Your task to perform on an android device: Open wifi settings Image 0: 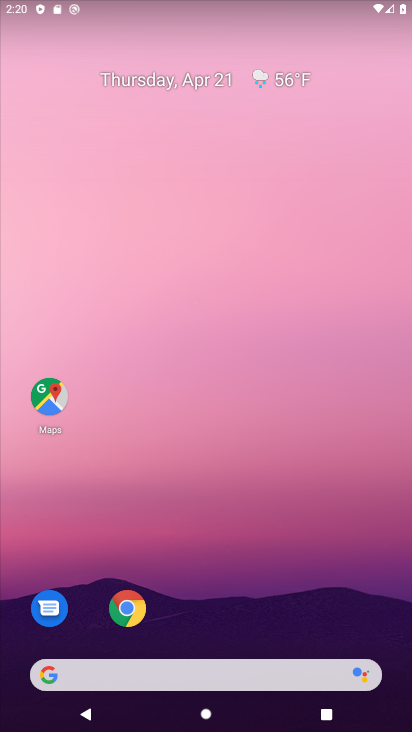
Step 0: drag from (247, 505) to (265, 73)
Your task to perform on an android device: Open wifi settings Image 1: 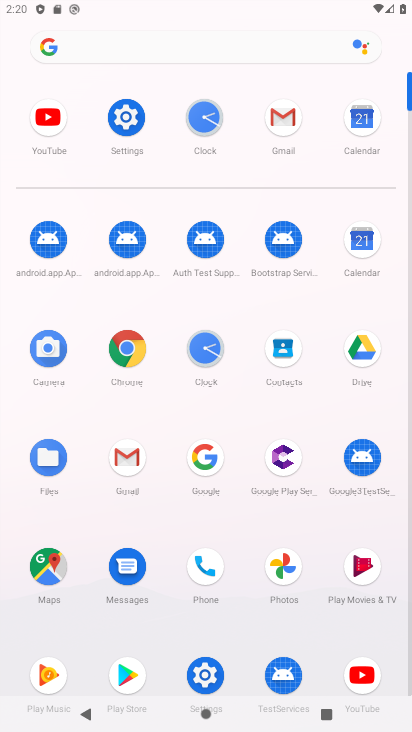
Step 1: click (116, 118)
Your task to perform on an android device: Open wifi settings Image 2: 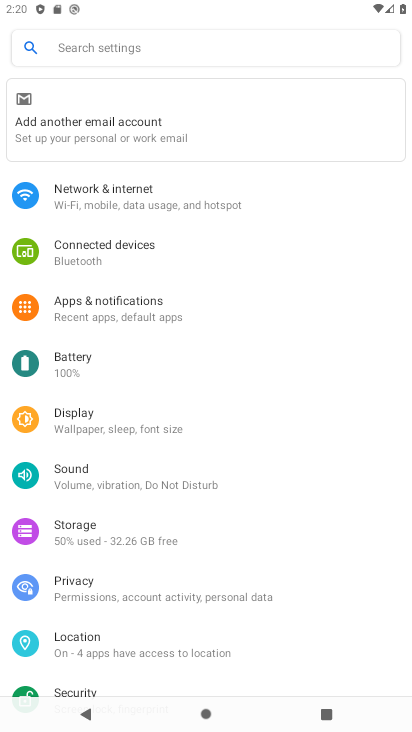
Step 2: click (137, 200)
Your task to perform on an android device: Open wifi settings Image 3: 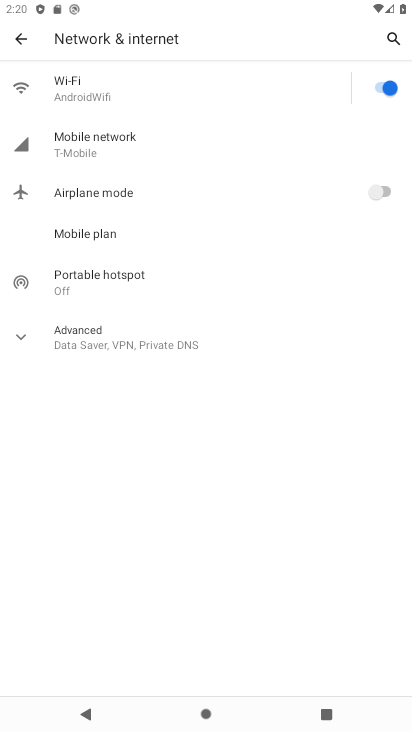
Step 3: click (100, 86)
Your task to perform on an android device: Open wifi settings Image 4: 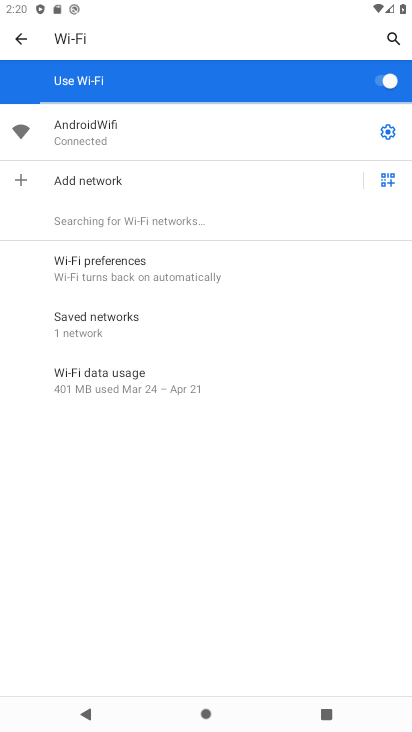
Step 4: task complete